Your task to perform on an android device: set an alarm Image 0: 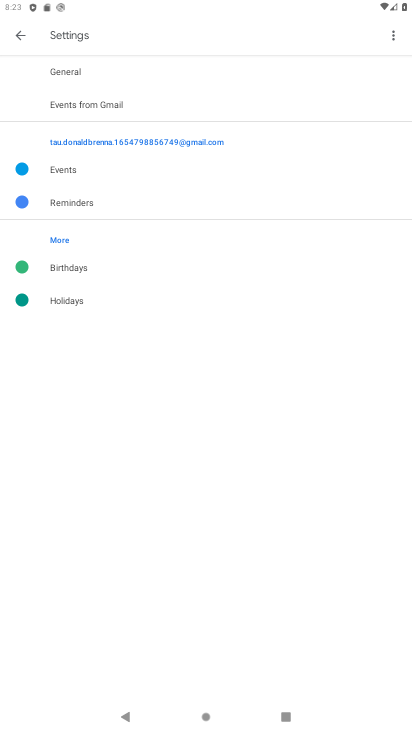
Step 0: press home button
Your task to perform on an android device: set an alarm Image 1: 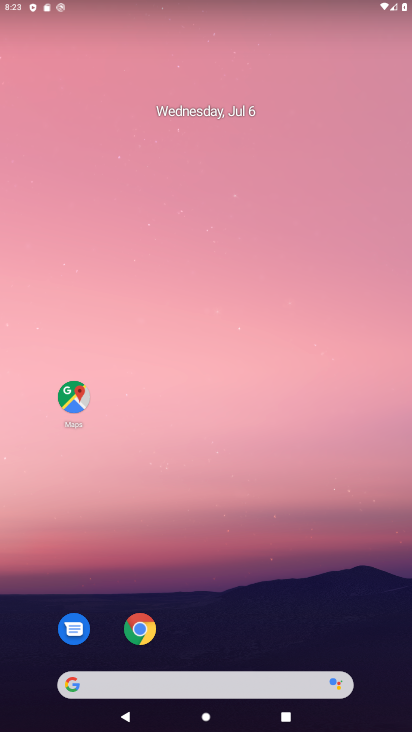
Step 1: drag from (35, 571) to (216, 118)
Your task to perform on an android device: set an alarm Image 2: 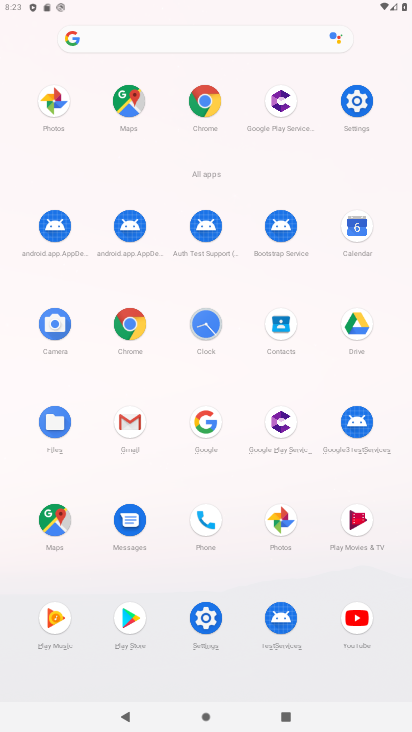
Step 2: click (207, 332)
Your task to perform on an android device: set an alarm Image 3: 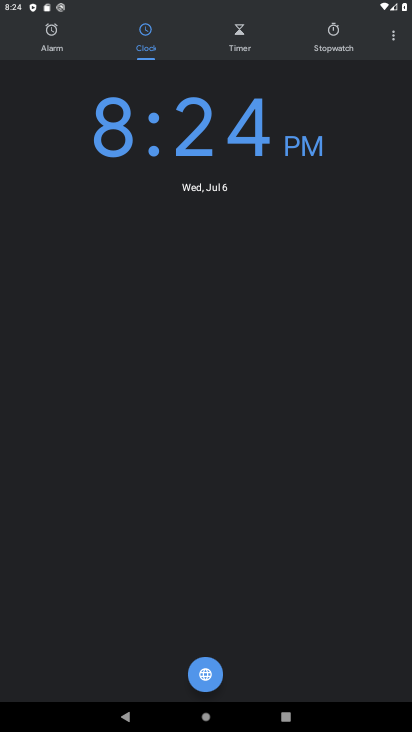
Step 3: click (46, 33)
Your task to perform on an android device: set an alarm Image 4: 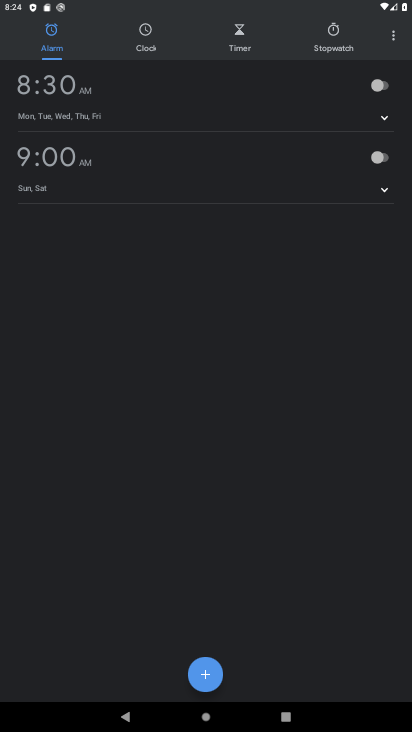
Step 4: click (206, 679)
Your task to perform on an android device: set an alarm Image 5: 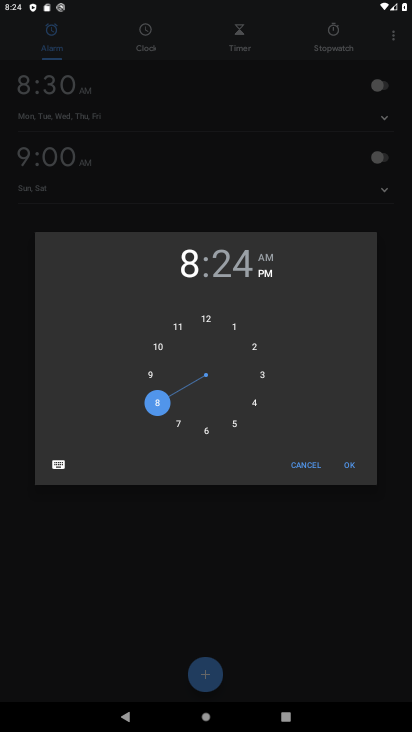
Step 5: click (152, 377)
Your task to perform on an android device: set an alarm Image 6: 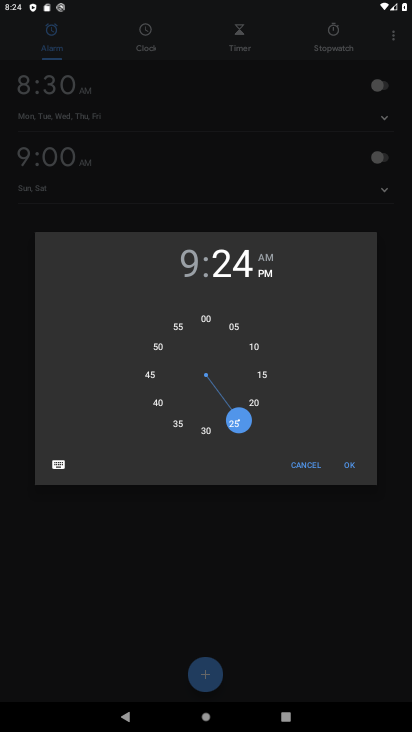
Step 6: click (206, 324)
Your task to perform on an android device: set an alarm Image 7: 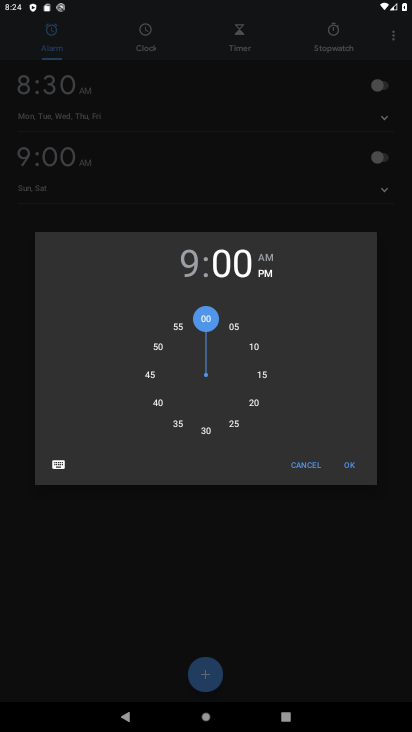
Step 7: click (272, 258)
Your task to perform on an android device: set an alarm Image 8: 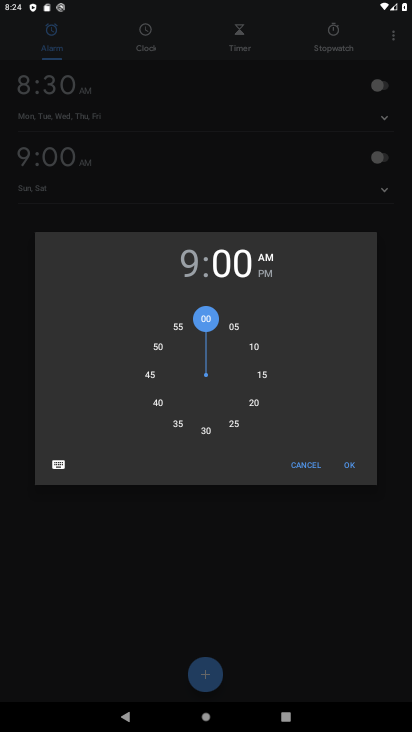
Step 8: click (355, 465)
Your task to perform on an android device: set an alarm Image 9: 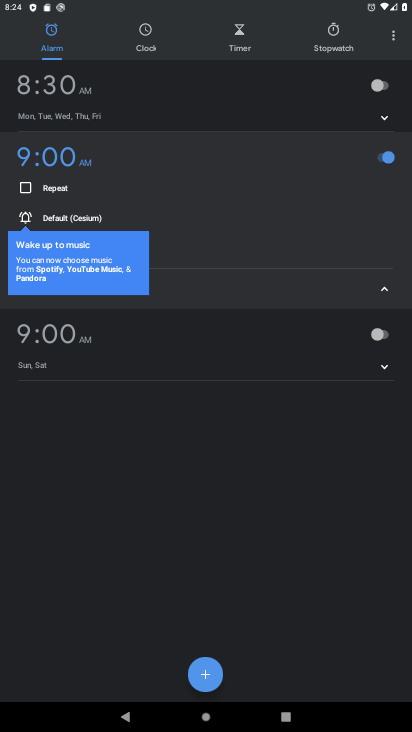
Step 9: task complete